Your task to perform on an android device: set the stopwatch Image 0: 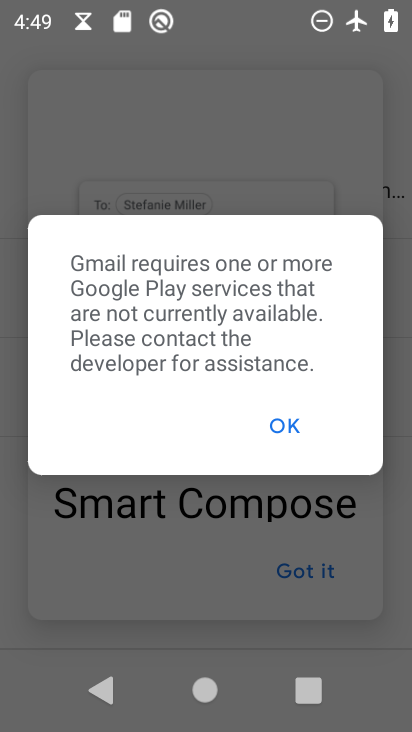
Step 0: press home button
Your task to perform on an android device: set the stopwatch Image 1: 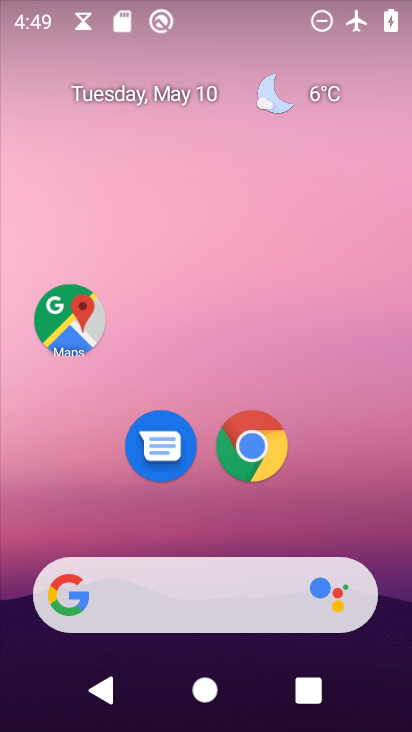
Step 1: drag from (232, 453) to (183, 166)
Your task to perform on an android device: set the stopwatch Image 2: 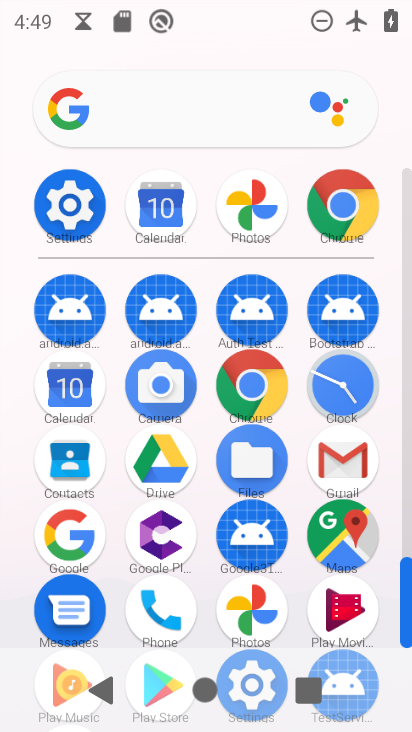
Step 2: click (354, 383)
Your task to perform on an android device: set the stopwatch Image 3: 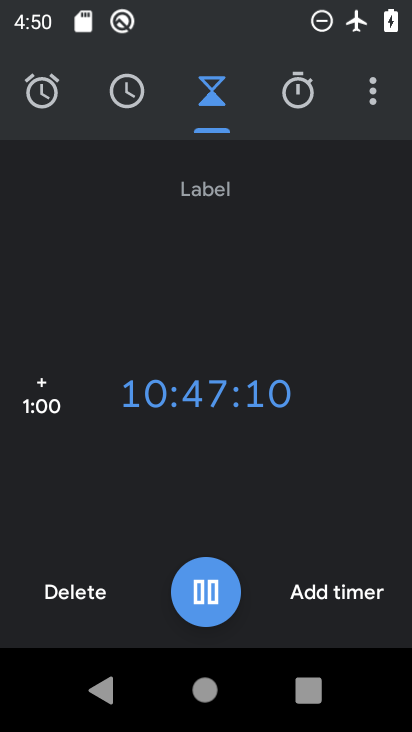
Step 3: click (290, 90)
Your task to perform on an android device: set the stopwatch Image 4: 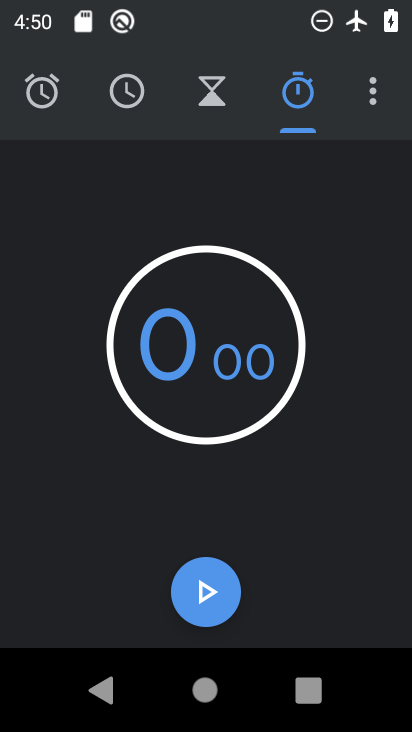
Step 4: click (215, 581)
Your task to perform on an android device: set the stopwatch Image 5: 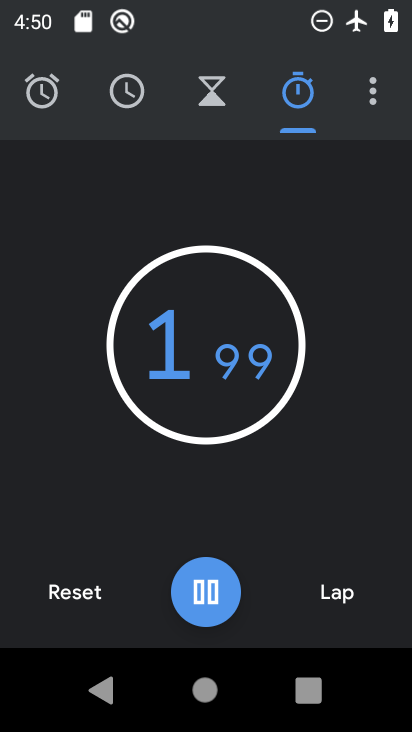
Step 5: task complete